Your task to perform on an android device: show emergency info Image 0: 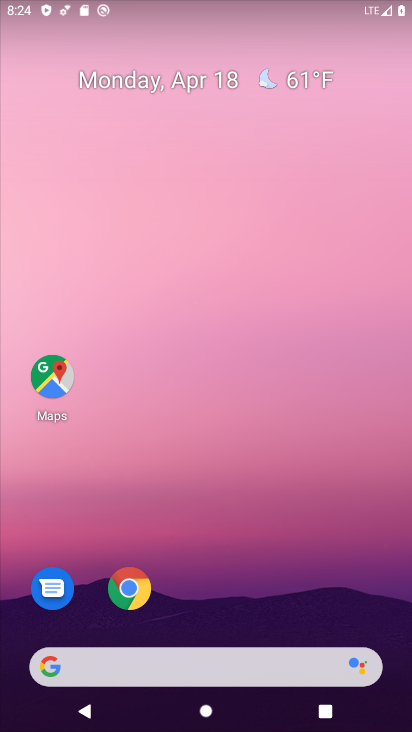
Step 0: drag from (385, 602) to (336, 129)
Your task to perform on an android device: show emergency info Image 1: 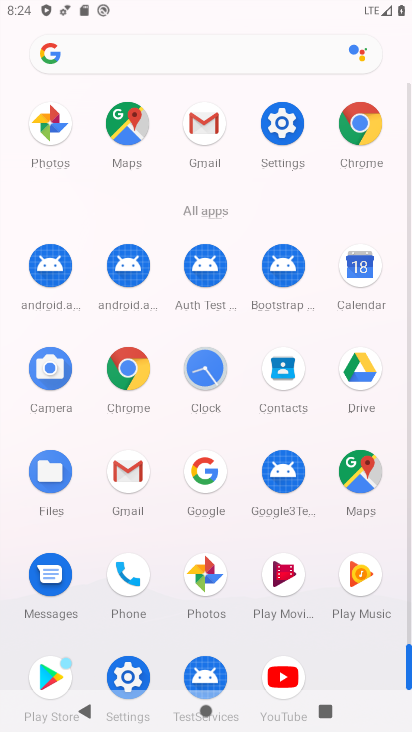
Step 1: click (125, 675)
Your task to perform on an android device: show emergency info Image 2: 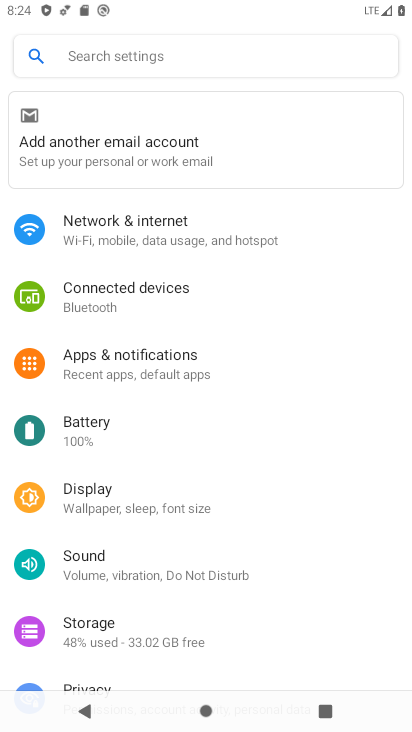
Step 2: drag from (305, 588) to (299, 292)
Your task to perform on an android device: show emergency info Image 3: 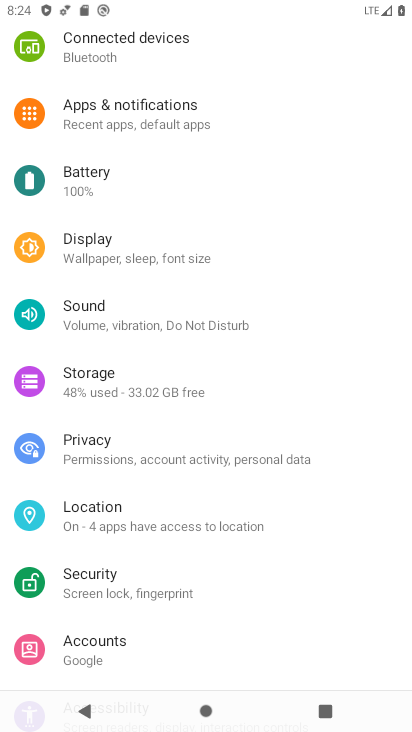
Step 3: drag from (323, 516) to (275, 236)
Your task to perform on an android device: show emergency info Image 4: 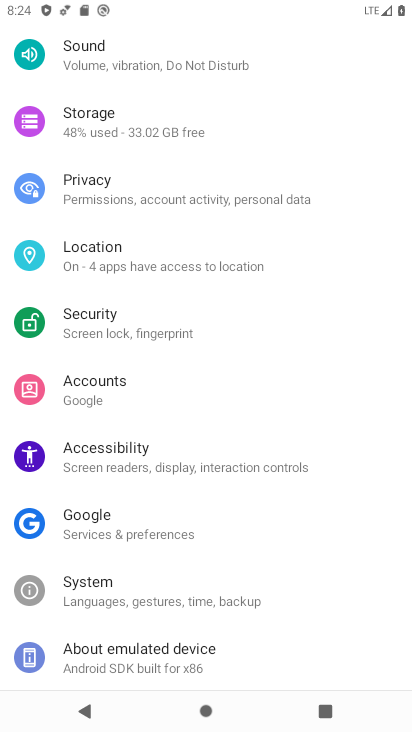
Step 4: drag from (305, 549) to (318, 258)
Your task to perform on an android device: show emergency info Image 5: 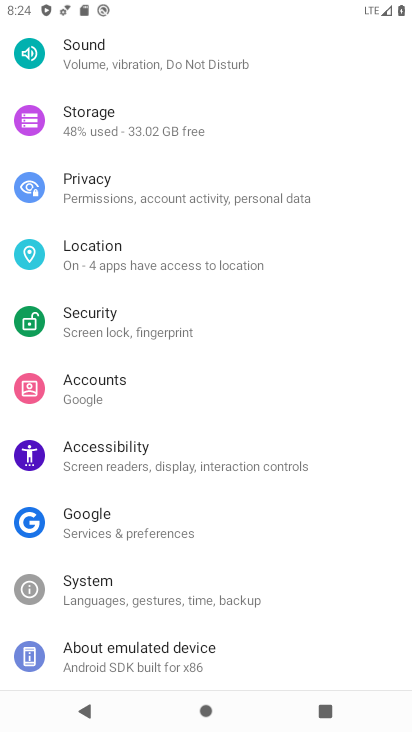
Step 5: click (99, 654)
Your task to perform on an android device: show emergency info Image 6: 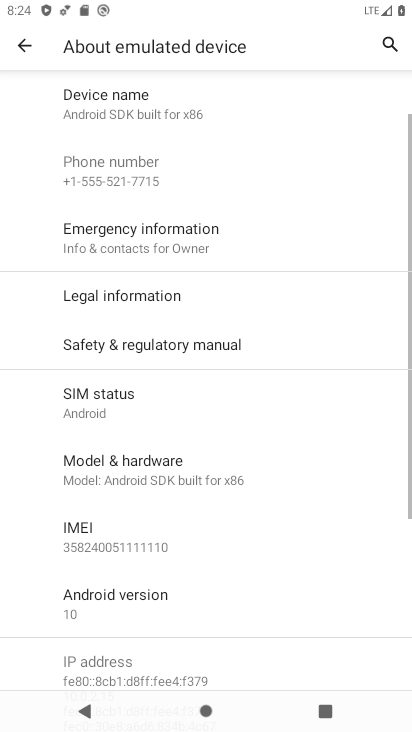
Step 6: click (119, 227)
Your task to perform on an android device: show emergency info Image 7: 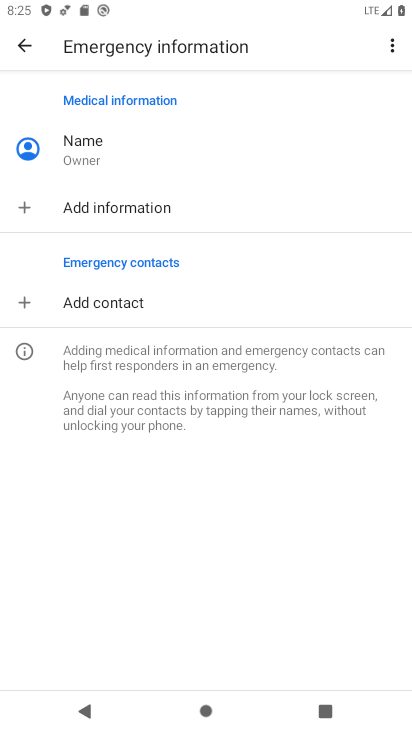
Step 7: task complete